Your task to perform on an android device: turn off notifications in google photos Image 0: 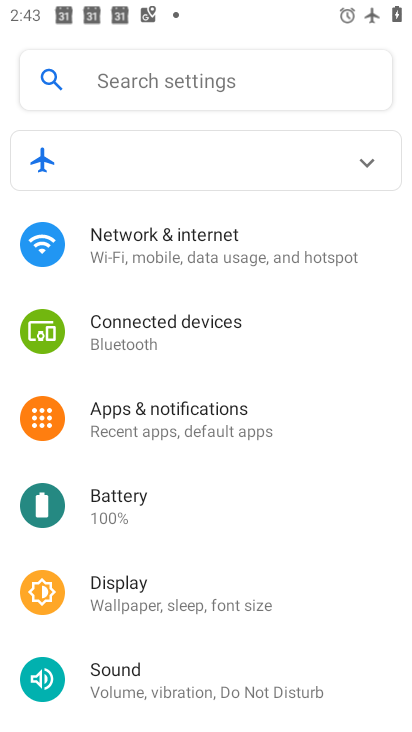
Step 0: press home button
Your task to perform on an android device: turn off notifications in google photos Image 1: 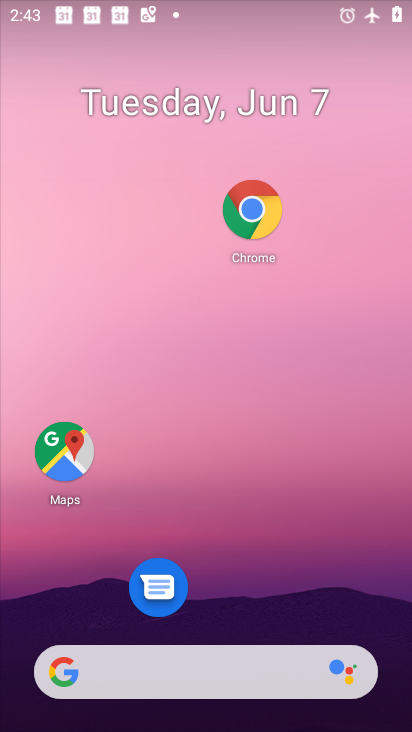
Step 1: drag from (206, 653) to (231, 110)
Your task to perform on an android device: turn off notifications in google photos Image 2: 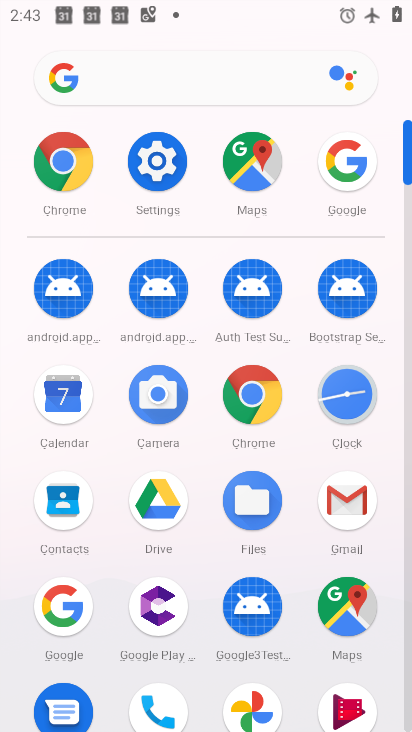
Step 2: drag from (149, 485) to (151, 200)
Your task to perform on an android device: turn off notifications in google photos Image 3: 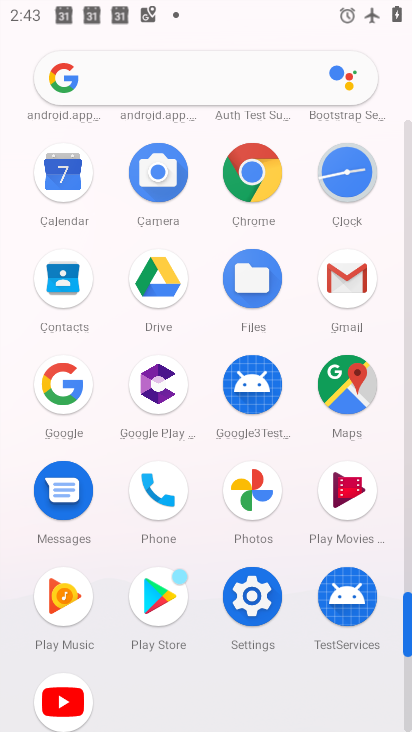
Step 3: click (249, 516)
Your task to perform on an android device: turn off notifications in google photos Image 4: 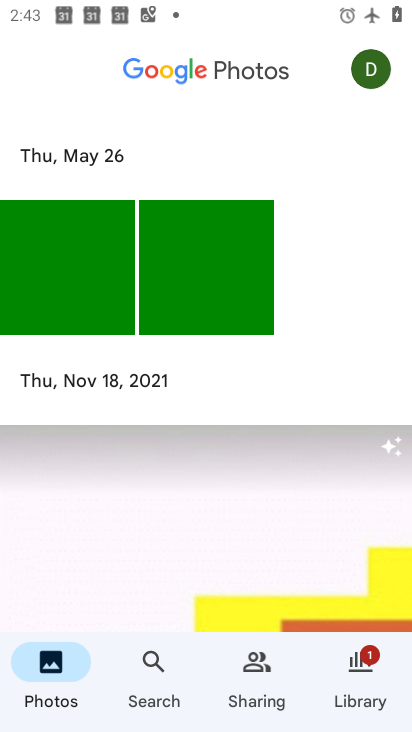
Step 4: click (379, 73)
Your task to perform on an android device: turn off notifications in google photos Image 5: 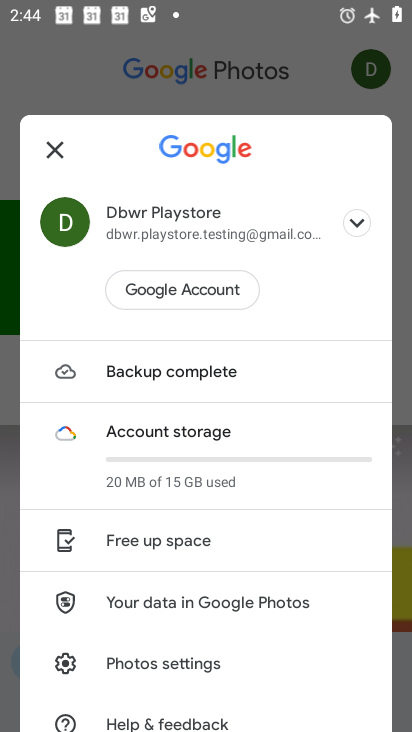
Step 5: drag from (190, 509) to (190, 460)
Your task to perform on an android device: turn off notifications in google photos Image 6: 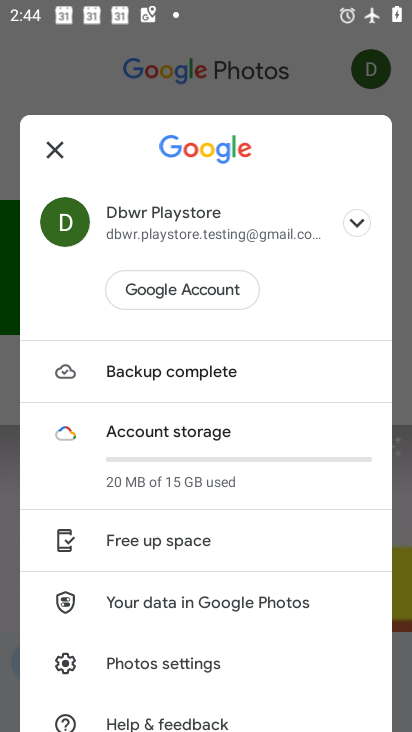
Step 6: click (185, 636)
Your task to perform on an android device: turn off notifications in google photos Image 7: 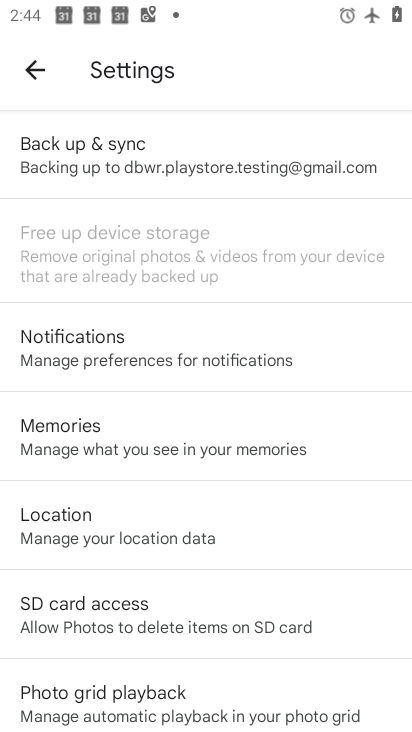
Step 7: click (129, 361)
Your task to perform on an android device: turn off notifications in google photos Image 8: 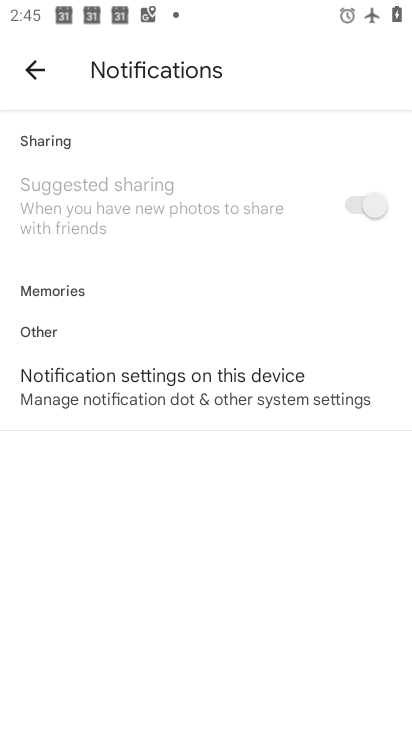
Step 8: click (258, 383)
Your task to perform on an android device: turn off notifications in google photos Image 9: 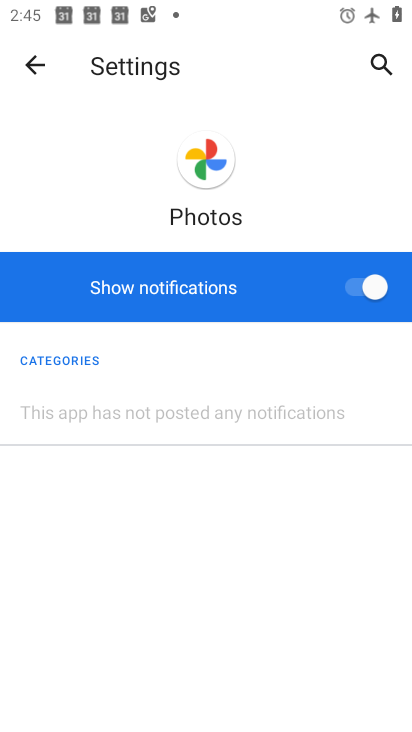
Step 9: click (297, 317)
Your task to perform on an android device: turn off notifications in google photos Image 10: 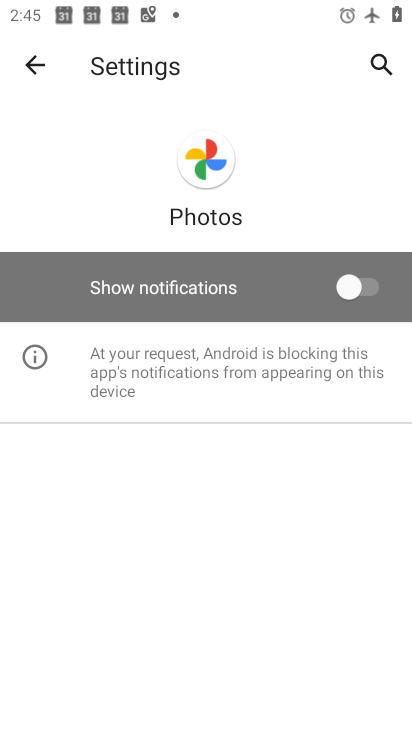
Step 10: task complete